Your task to perform on an android device: add a label to a message in the gmail app Image 0: 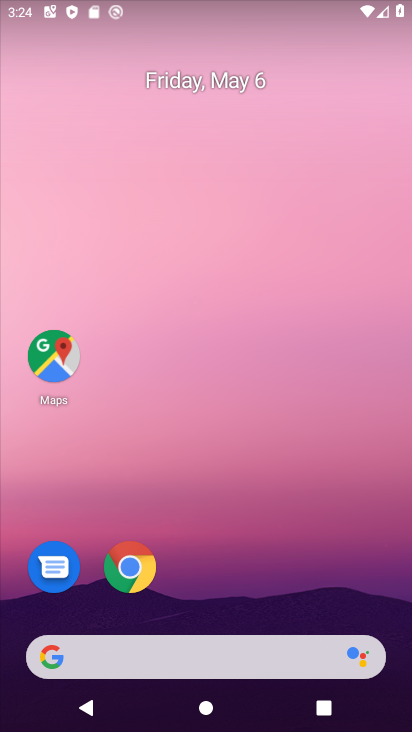
Step 0: drag from (174, 604) to (248, 232)
Your task to perform on an android device: add a label to a message in the gmail app Image 1: 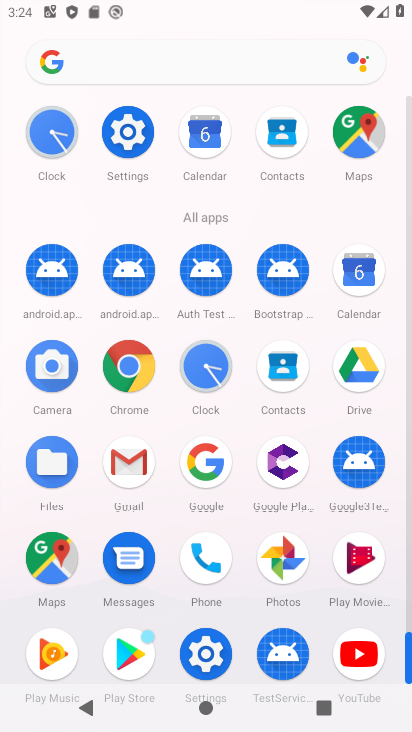
Step 1: click (126, 480)
Your task to perform on an android device: add a label to a message in the gmail app Image 2: 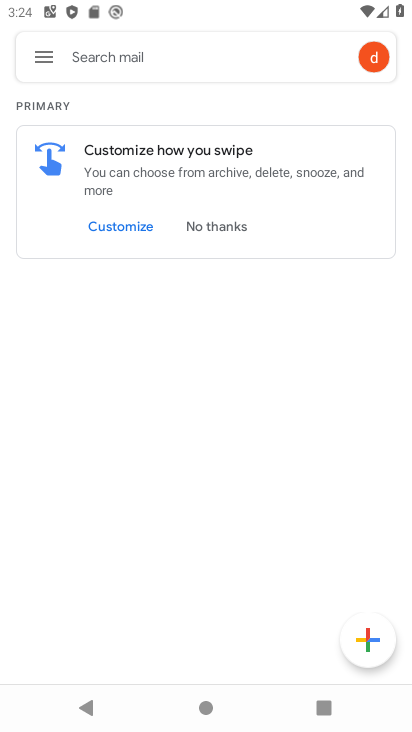
Step 2: click (50, 64)
Your task to perform on an android device: add a label to a message in the gmail app Image 3: 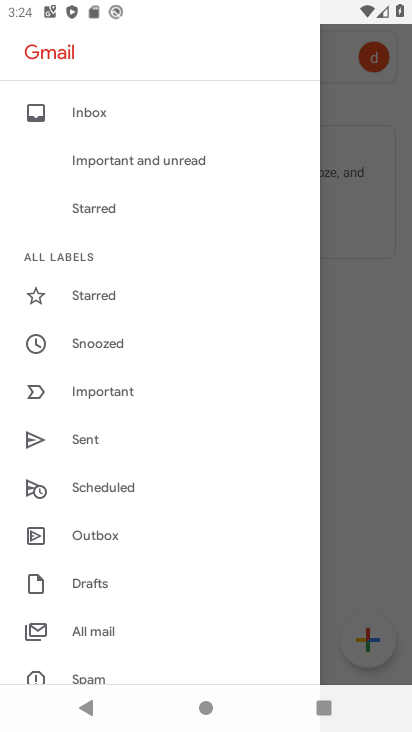
Step 3: click (108, 641)
Your task to perform on an android device: add a label to a message in the gmail app Image 4: 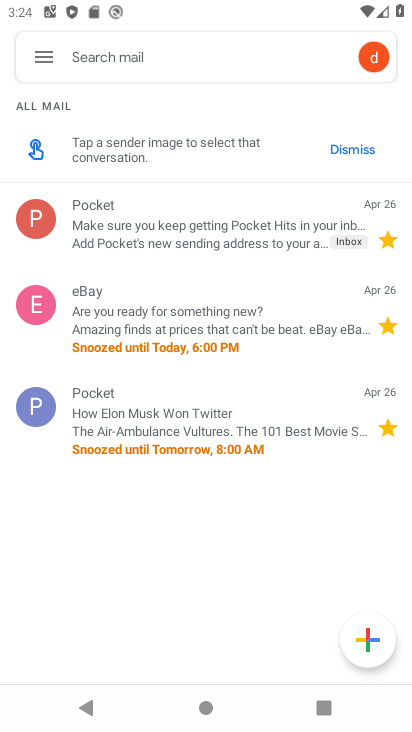
Step 4: click (277, 213)
Your task to perform on an android device: add a label to a message in the gmail app Image 5: 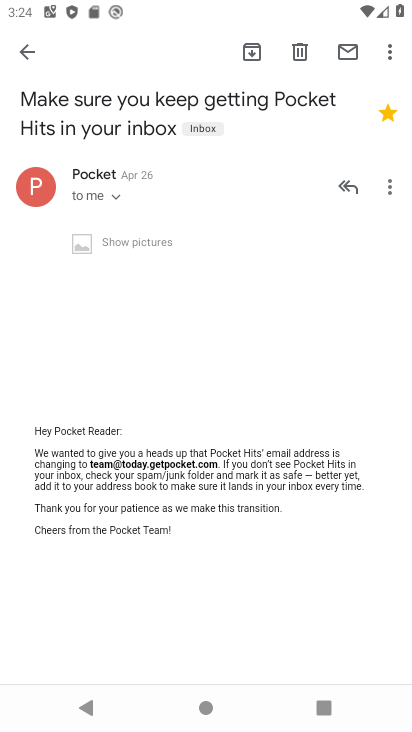
Step 5: click (384, 55)
Your task to perform on an android device: add a label to a message in the gmail app Image 6: 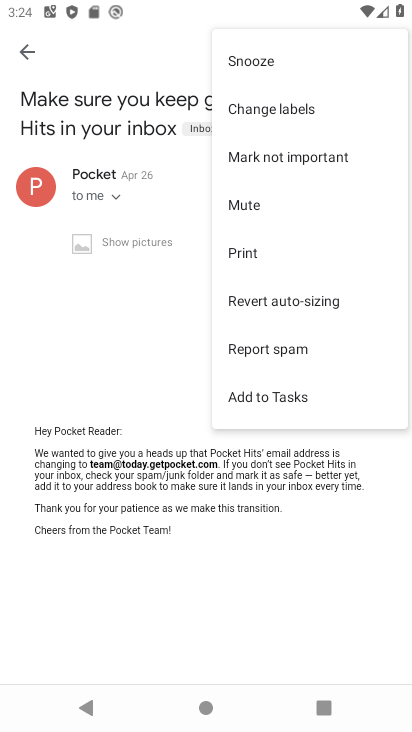
Step 6: click (266, 113)
Your task to perform on an android device: add a label to a message in the gmail app Image 7: 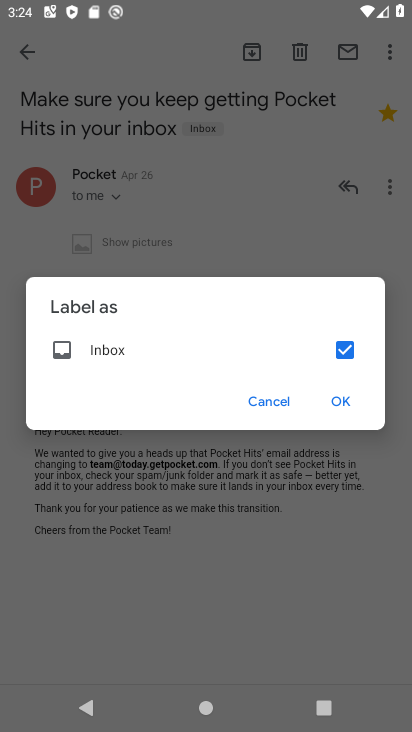
Step 7: click (340, 409)
Your task to perform on an android device: add a label to a message in the gmail app Image 8: 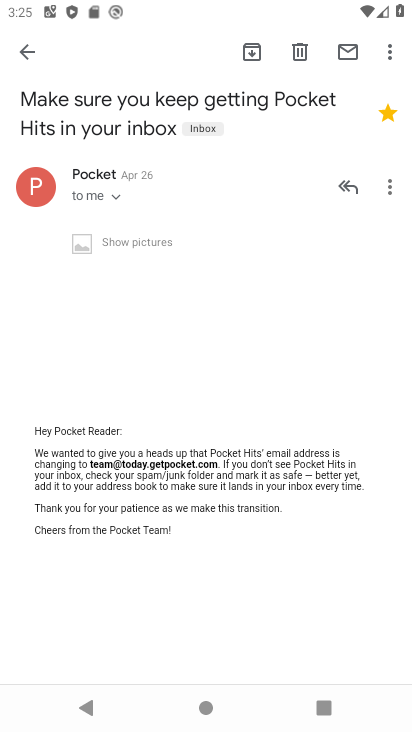
Step 8: click (385, 184)
Your task to perform on an android device: add a label to a message in the gmail app Image 9: 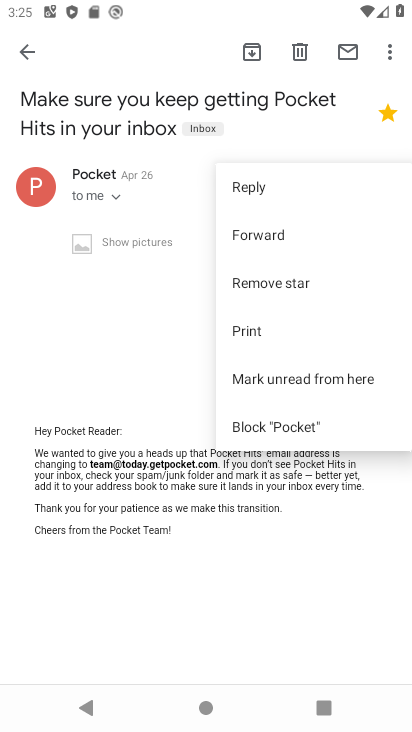
Step 9: task complete